Your task to perform on an android device: set an alarm Image 0: 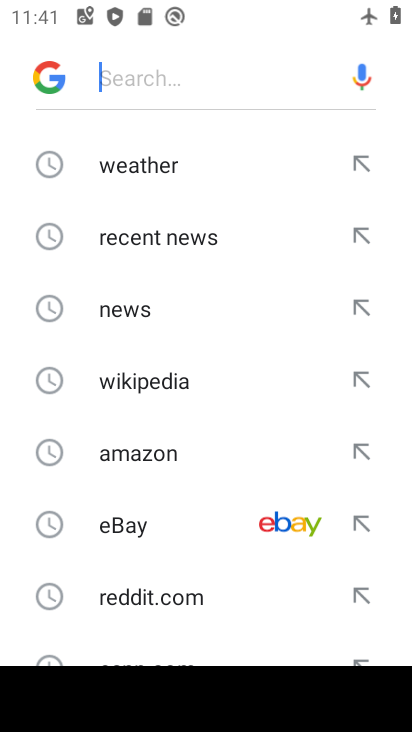
Step 0: press home button
Your task to perform on an android device: set an alarm Image 1: 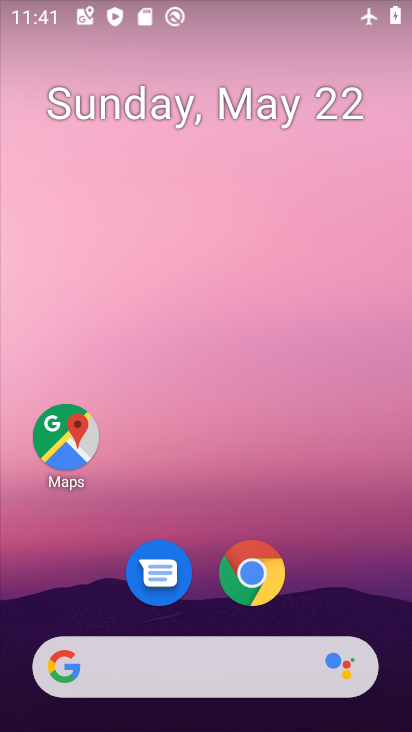
Step 1: drag from (333, 617) to (369, 45)
Your task to perform on an android device: set an alarm Image 2: 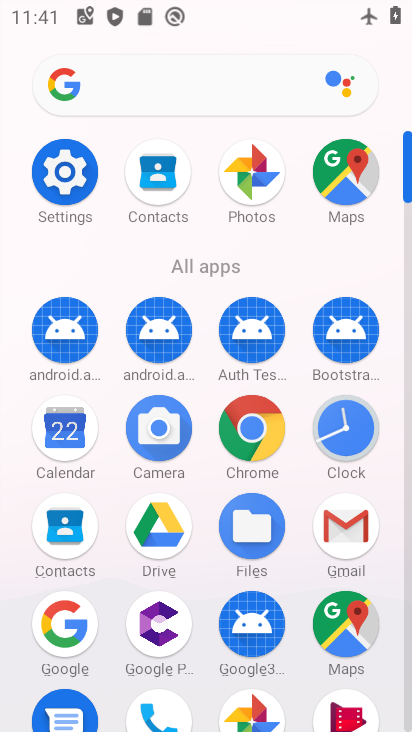
Step 2: click (353, 422)
Your task to perform on an android device: set an alarm Image 3: 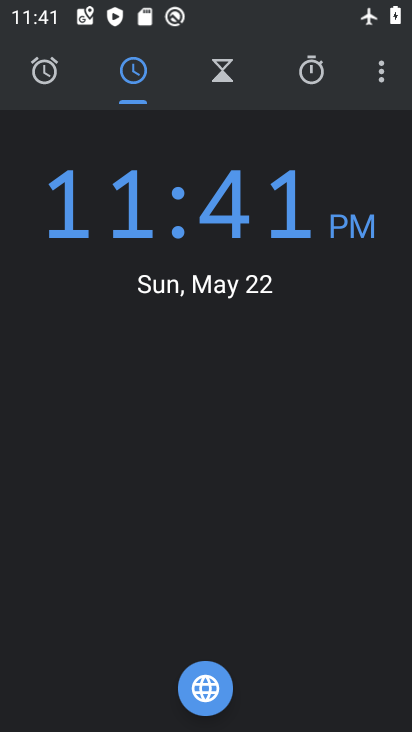
Step 3: click (56, 73)
Your task to perform on an android device: set an alarm Image 4: 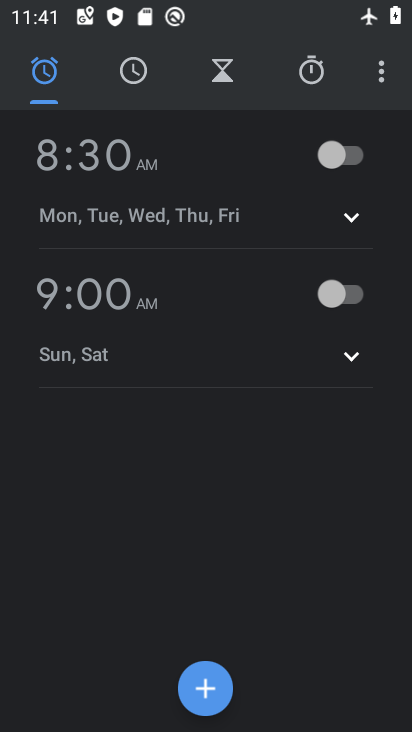
Step 4: click (192, 705)
Your task to perform on an android device: set an alarm Image 5: 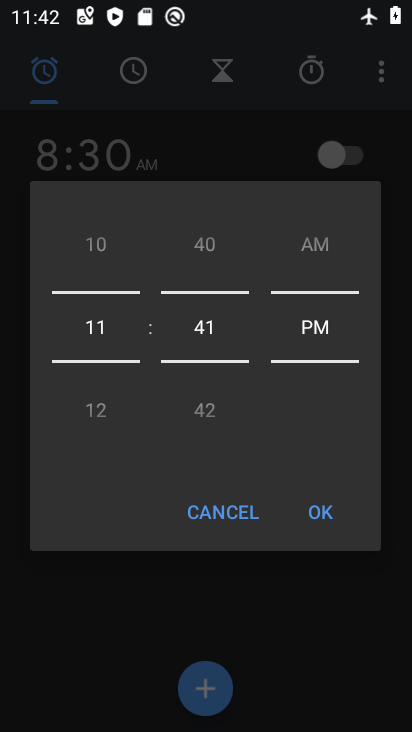
Step 5: click (328, 500)
Your task to perform on an android device: set an alarm Image 6: 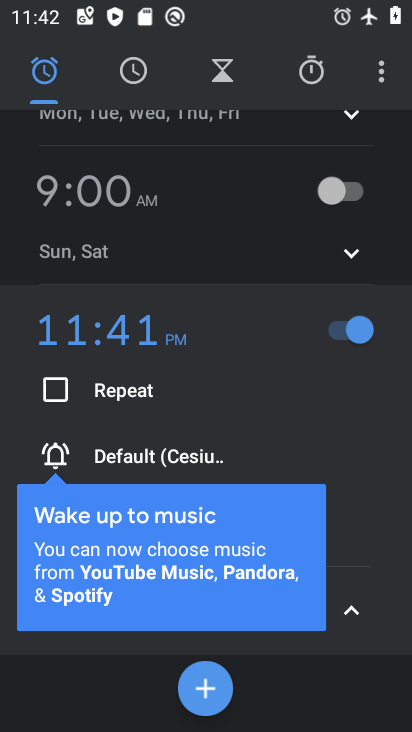
Step 6: click (359, 605)
Your task to perform on an android device: set an alarm Image 7: 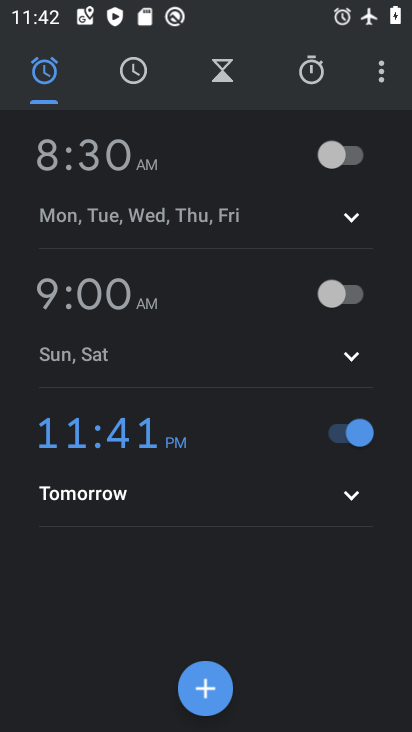
Step 7: task complete